Your task to perform on an android device: read, delete, or share a saved page in the chrome app Image 0: 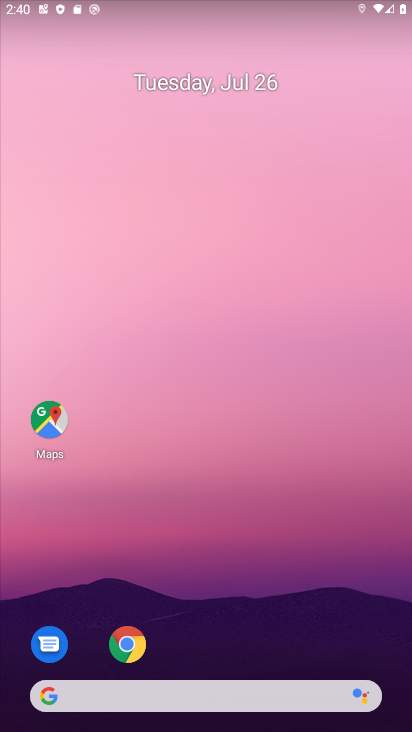
Step 0: press home button
Your task to perform on an android device: read, delete, or share a saved page in the chrome app Image 1: 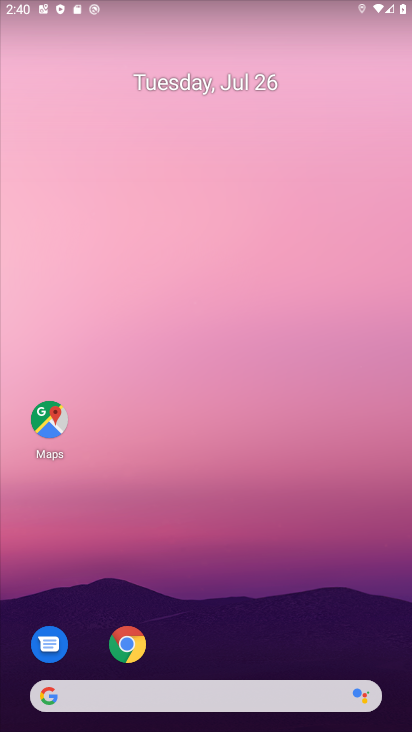
Step 1: click (131, 648)
Your task to perform on an android device: read, delete, or share a saved page in the chrome app Image 2: 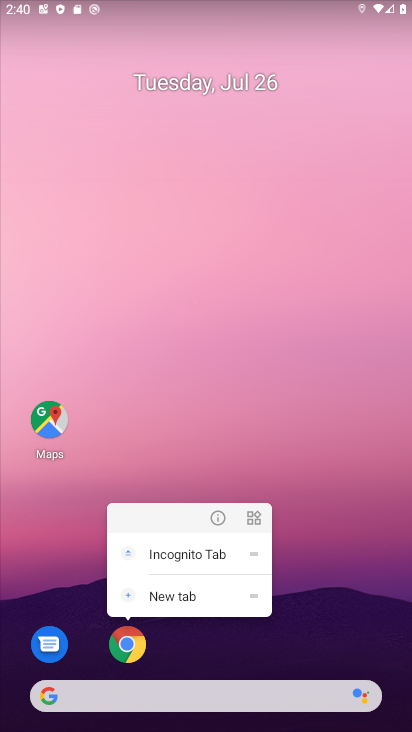
Step 2: click (147, 648)
Your task to perform on an android device: read, delete, or share a saved page in the chrome app Image 3: 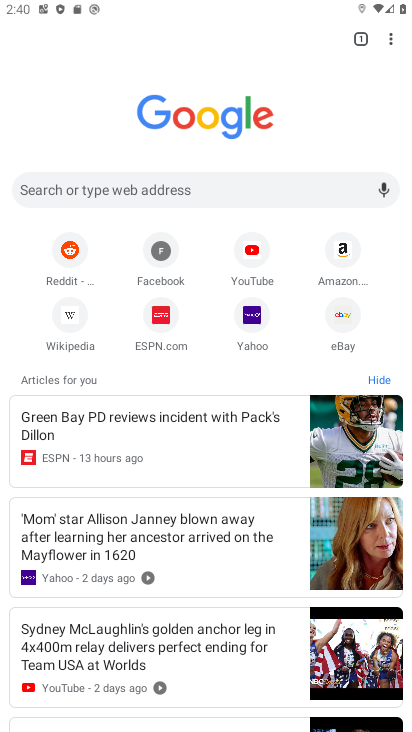
Step 3: task complete